Your task to perform on an android device: Go to location settings Image 0: 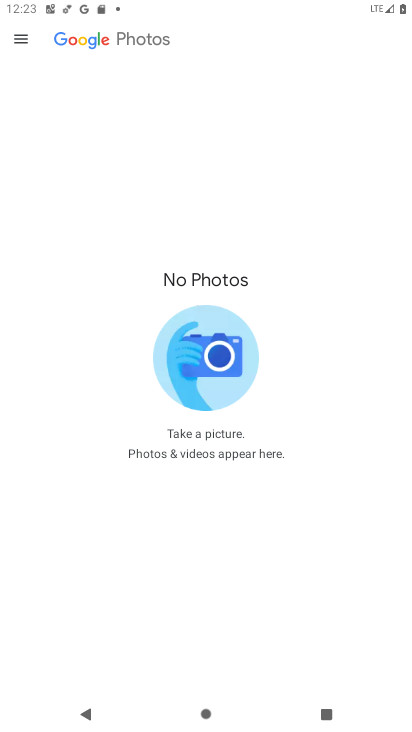
Step 0: press home button
Your task to perform on an android device: Go to location settings Image 1: 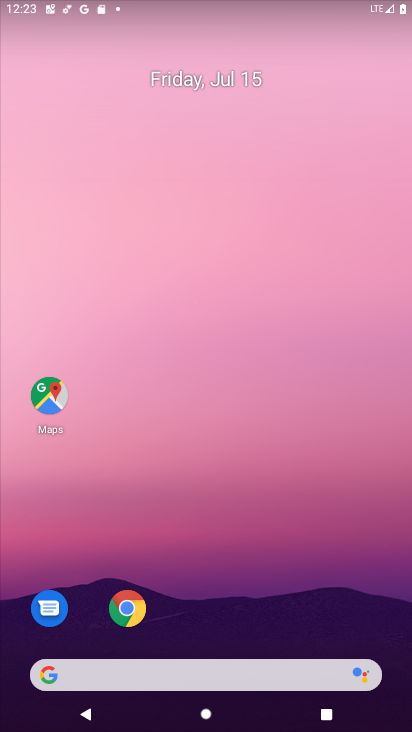
Step 1: drag from (265, 587) to (138, 78)
Your task to perform on an android device: Go to location settings Image 2: 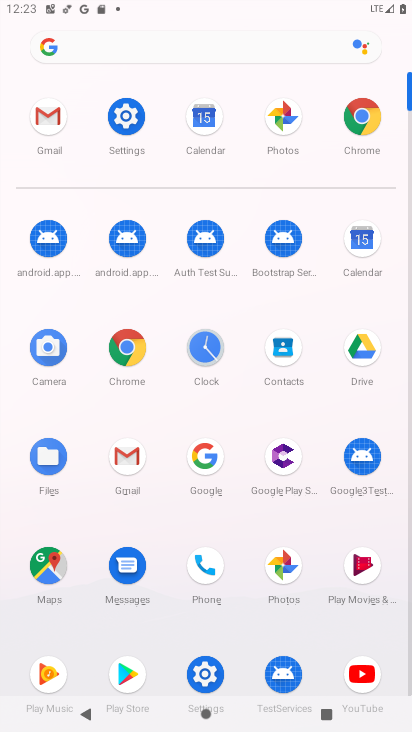
Step 2: click (201, 673)
Your task to perform on an android device: Go to location settings Image 3: 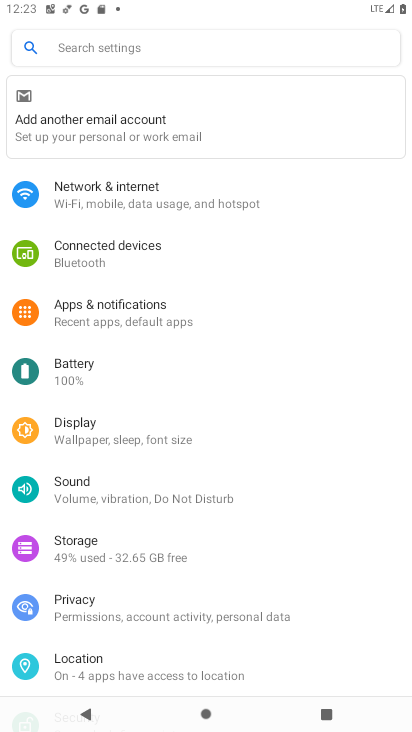
Step 3: click (86, 657)
Your task to perform on an android device: Go to location settings Image 4: 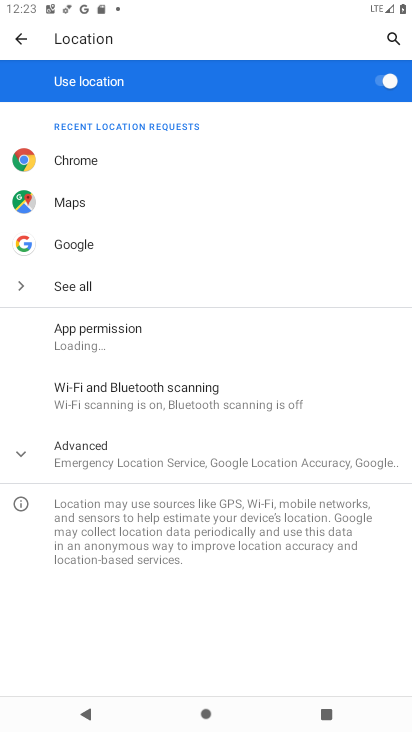
Step 4: task complete